Your task to perform on an android device: open wifi settings Image 0: 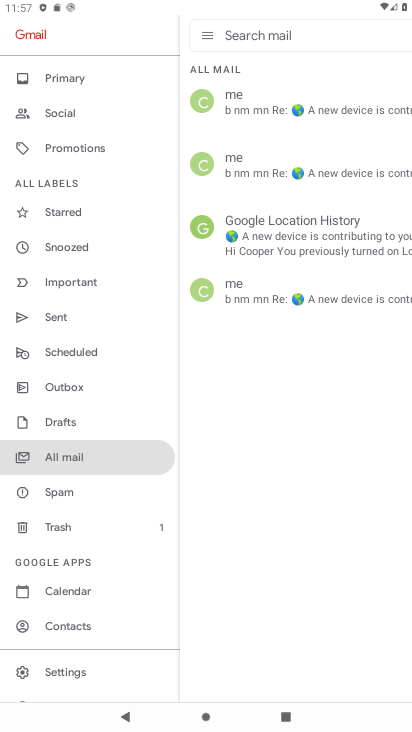
Step 0: press back button
Your task to perform on an android device: open wifi settings Image 1: 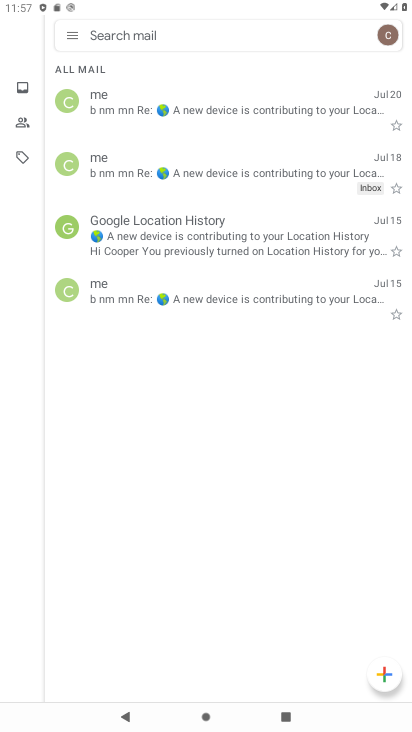
Step 1: press back button
Your task to perform on an android device: open wifi settings Image 2: 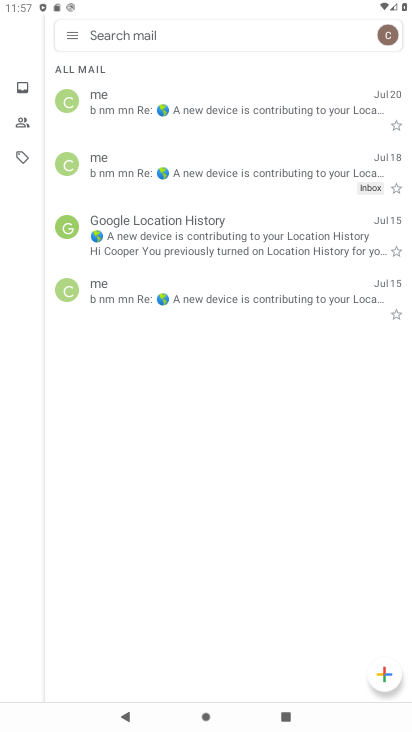
Step 2: press back button
Your task to perform on an android device: open wifi settings Image 3: 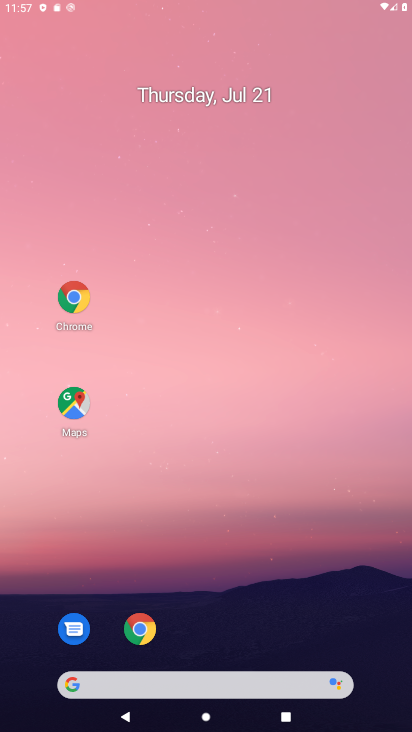
Step 3: press back button
Your task to perform on an android device: open wifi settings Image 4: 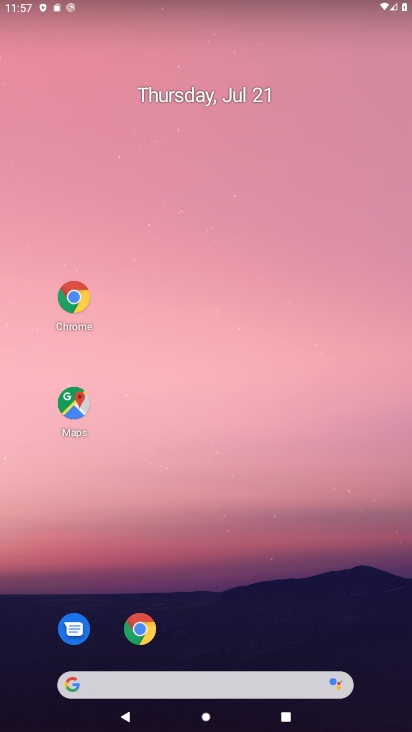
Step 4: drag from (192, 618) to (206, 260)
Your task to perform on an android device: open wifi settings Image 5: 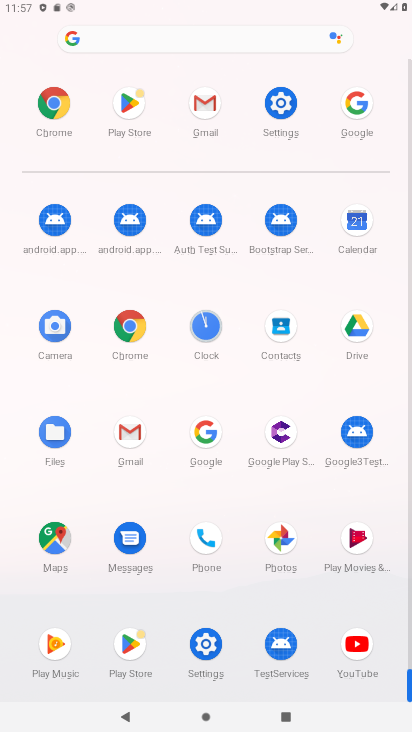
Step 5: click (201, 638)
Your task to perform on an android device: open wifi settings Image 6: 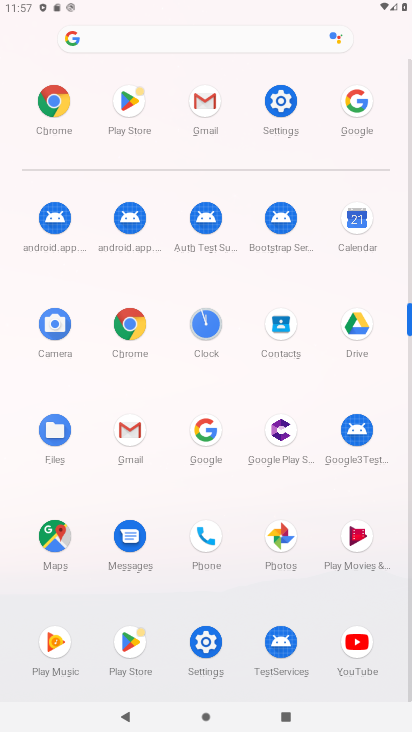
Step 6: click (212, 645)
Your task to perform on an android device: open wifi settings Image 7: 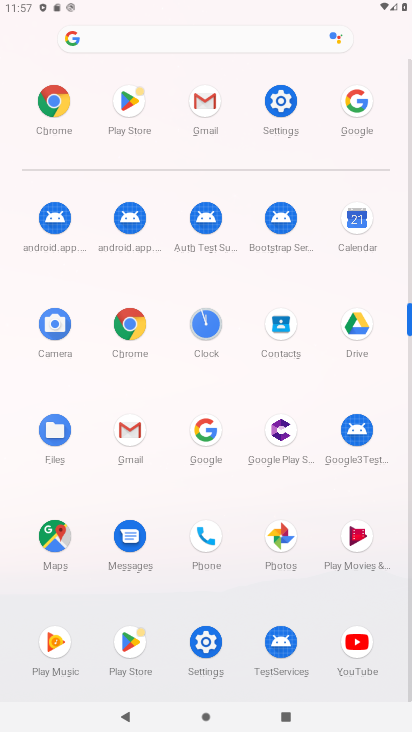
Step 7: click (212, 645)
Your task to perform on an android device: open wifi settings Image 8: 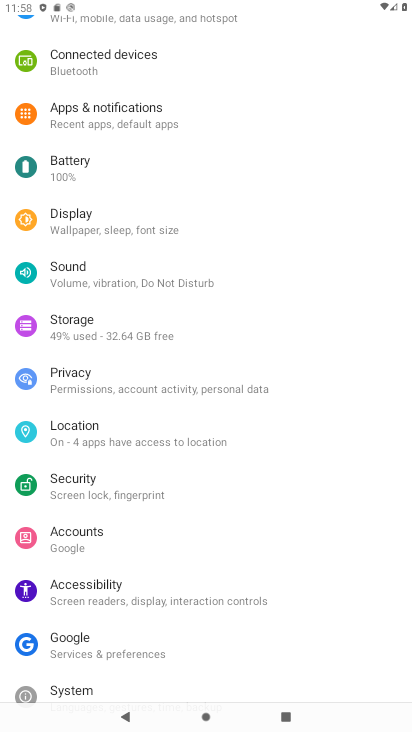
Step 8: click (111, 488)
Your task to perform on an android device: open wifi settings Image 9: 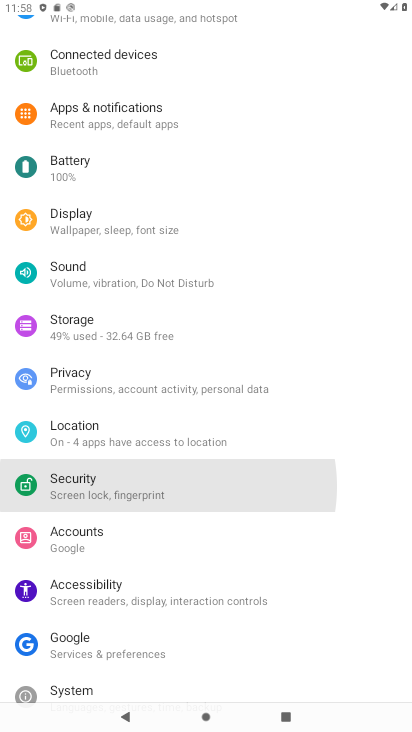
Step 9: drag from (173, 415) to (183, 467)
Your task to perform on an android device: open wifi settings Image 10: 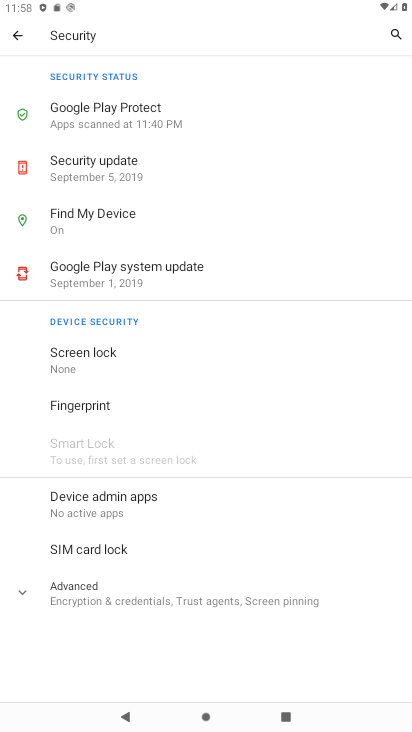
Step 10: click (10, 42)
Your task to perform on an android device: open wifi settings Image 11: 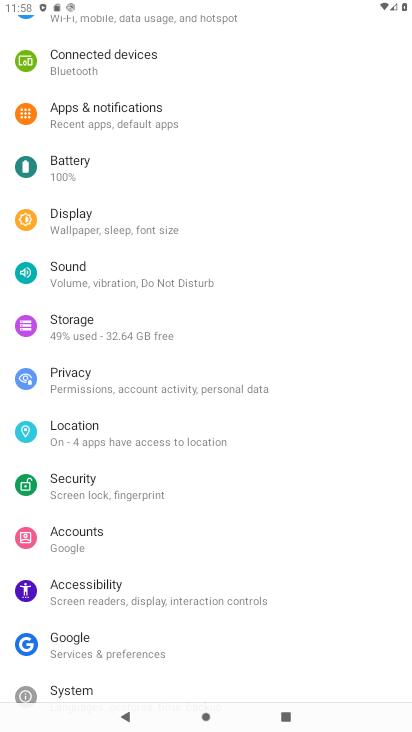
Step 11: drag from (94, 59) to (122, 422)
Your task to perform on an android device: open wifi settings Image 12: 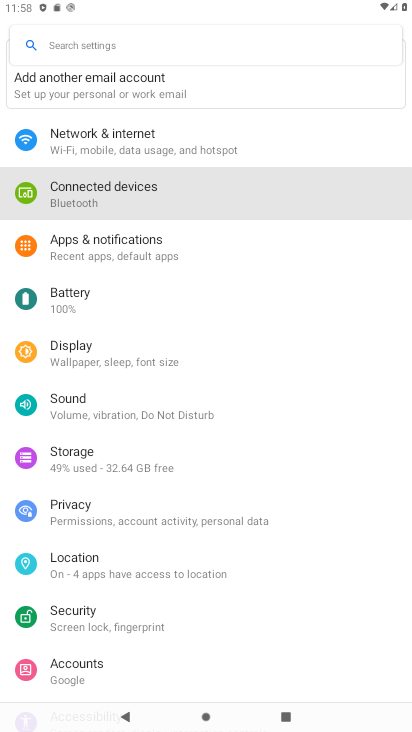
Step 12: drag from (106, 163) to (130, 562)
Your task to perform on an android device: open wifi settings Image 13: 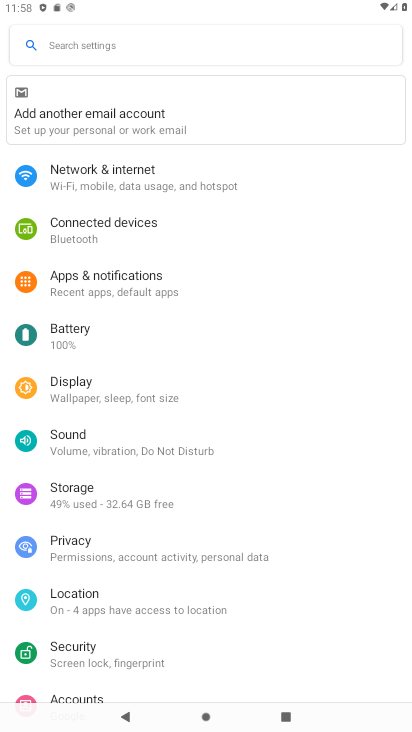
Step 13: click (118, 179)
Your task to perform on an android device: open wifi settings Image 14: 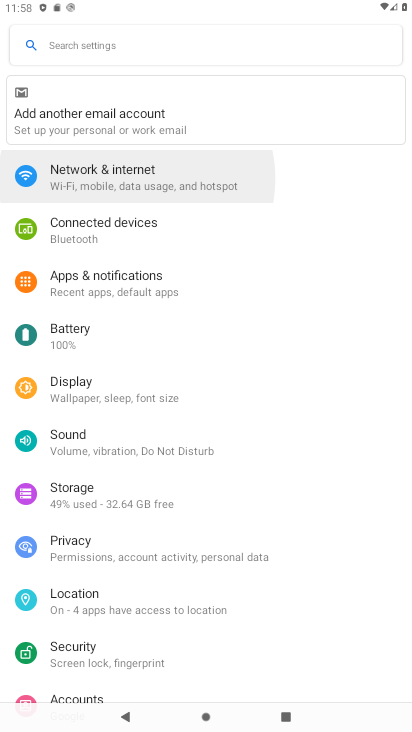
Step 14: click (118, 179)
Your task to perform on an android device: open wifi settings Image 15: 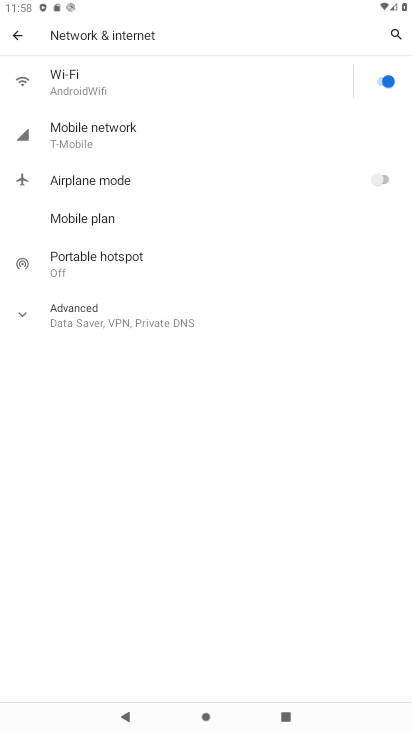
Step 15: task complete